Your task to perform on an android device: turn on the 24-hour format for clock Image 0: 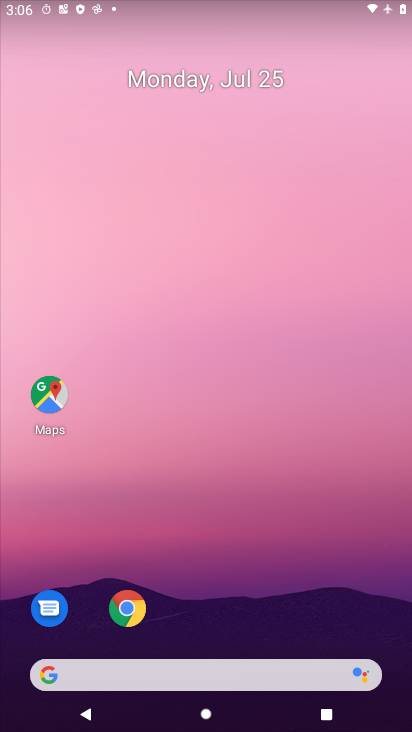
Step 0: drag from (260, 676) to (198, 142)
Your task to perform on an android device: turn on the 24-hour format for clock Image 1: 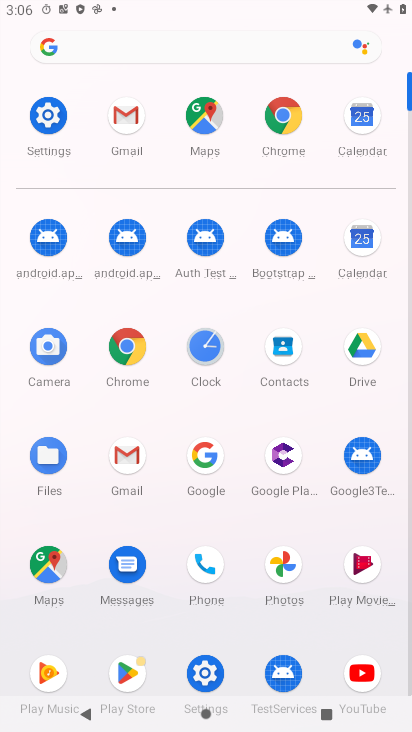
Step 1: click (217, 340)
Your task to perform on an android device: turn on the 24-hour format for clock Image 2: 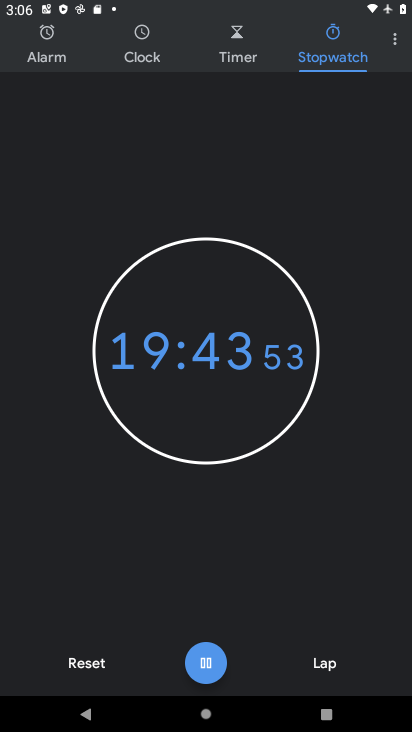
Step 2: click (400, 45)
Your task to perform on an android device: turn on the 24-hour format for clock Image 3: 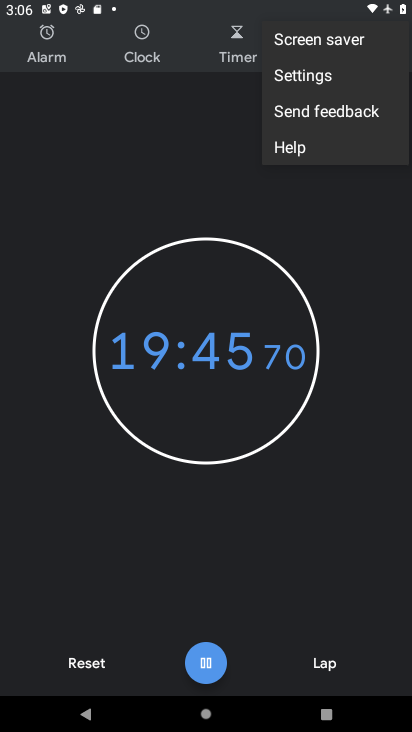
Step 3: click (345, 76)
Your task to perform on an android device: turn on the 24-hour format for clock Image 4: 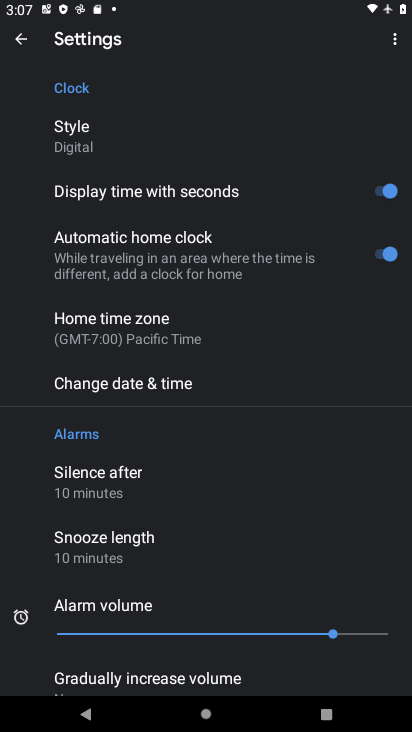
Step 4: click (199, 397)
Your task to perform on an android device: turn on the 24-hour format for clock Image 5: 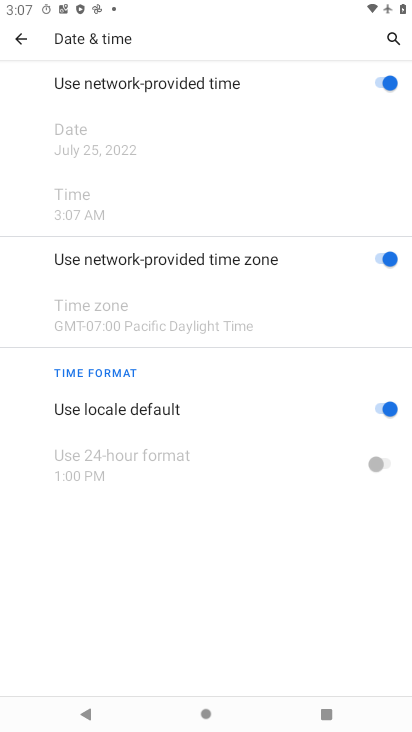
Step 5: task complete